Your task to perform on an android device: What's the weather today? Image 0: 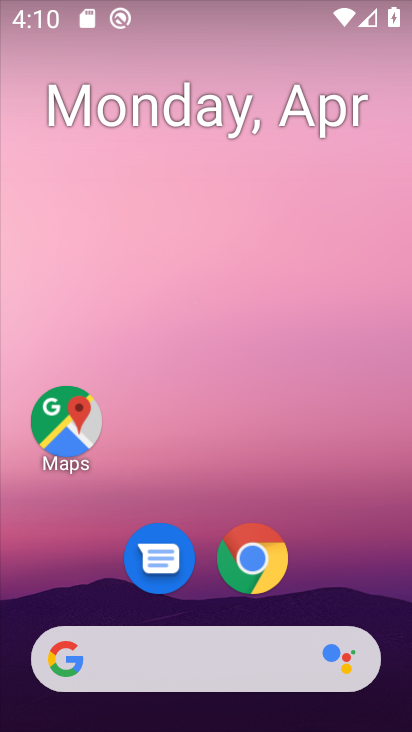
Step 0: drag from (340, 462) to (267, 12)
Your task to perform on an android device: What's the weather today? Image 1: 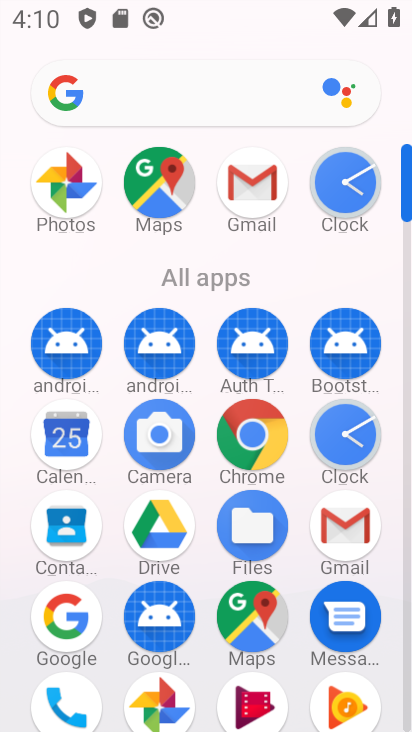
Step 1: drag from (345, 383) to (361, 112)
Your task to perform on an android device: What's the weather today? Image 2: 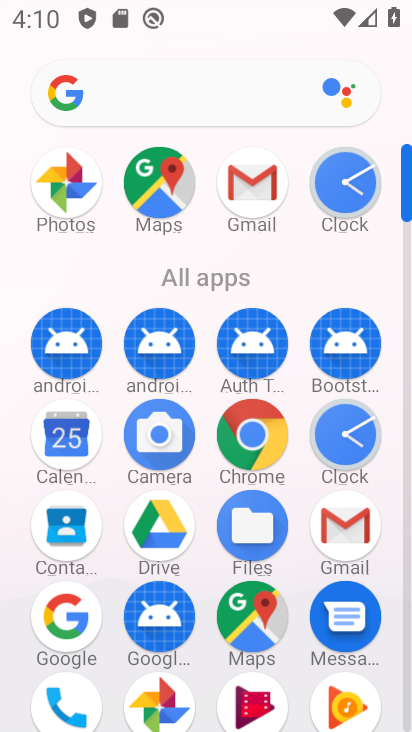
Step 2: drag from (402, 516) to (406, 258)
Your task to perform on an android device: What's the weather today? Image 3: 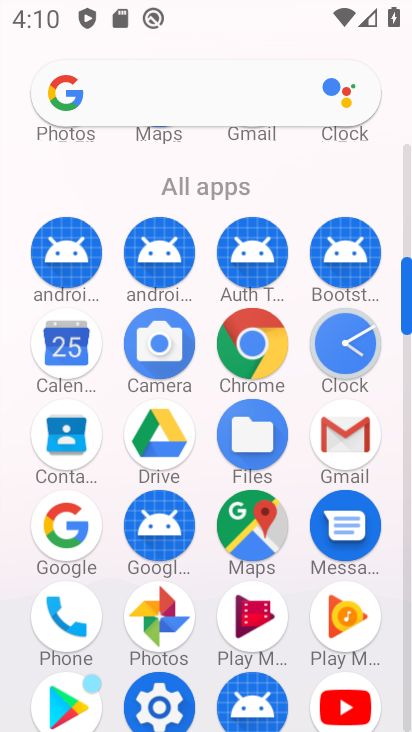
Step 3: click (80, 538)
Your task to perform on an android device: What's the weather today? Image 4: 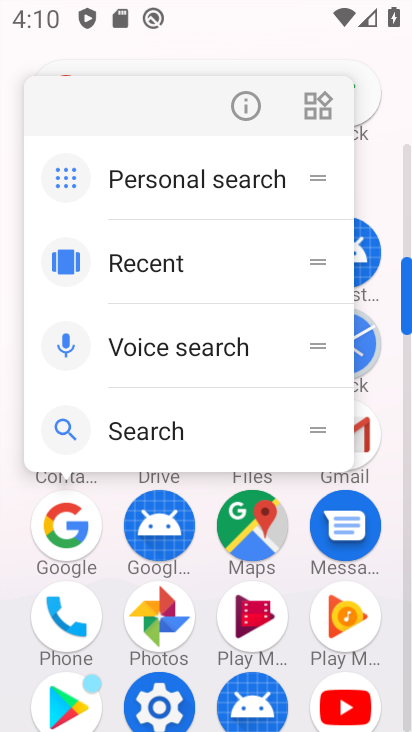
Step 4: click (80, 538)
Your task to perform on an android device: What's the weather today? Image 5: 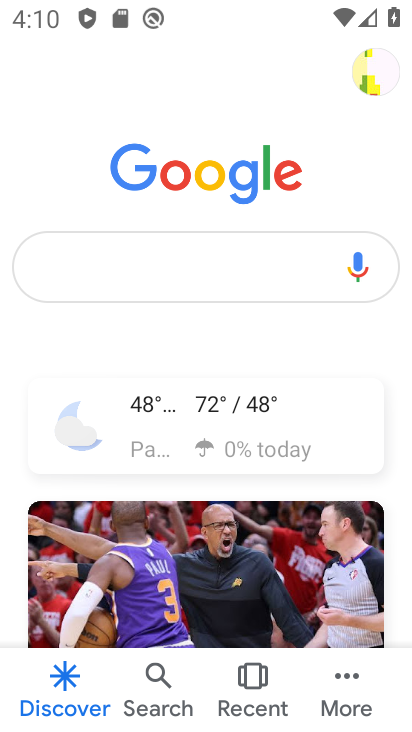
Step 5: click (223, 423)
Your task to perform on an android device: What's the weather today? Image 6: 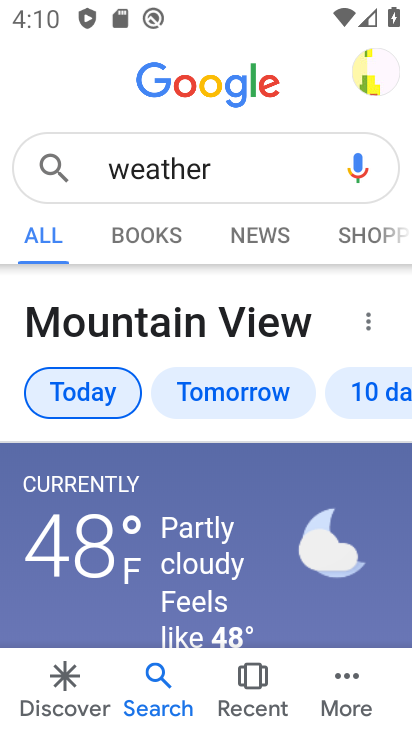
Step 6: task complete